Your task to perform on an android device: read, delete, or share a saved page in the chrome app Image 0: 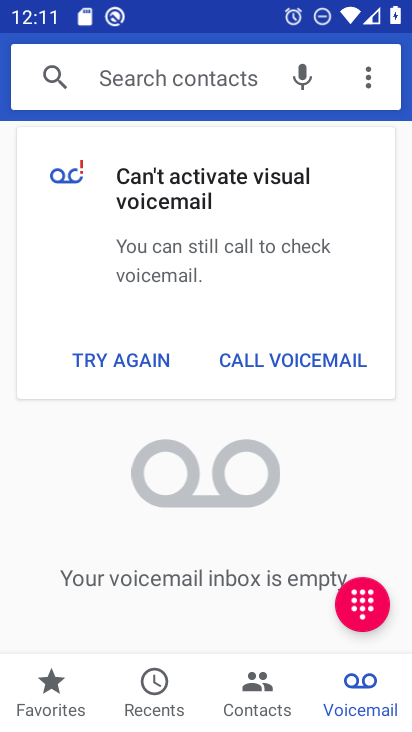
Step 0: press home button
Your task to perform on an android device: read, delete, or share a saved page in the chrome app Image 1: 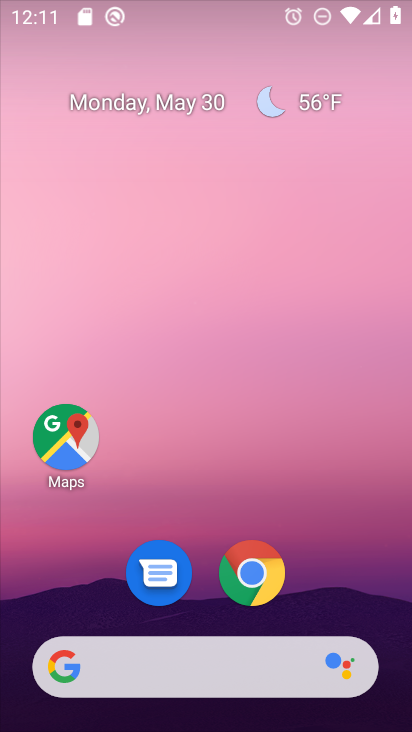
Step 1: drag from (282, 636) to (366, 11)
Your task to perform on an android device: read, delete, or share a saved page in the chrome app Image 2: 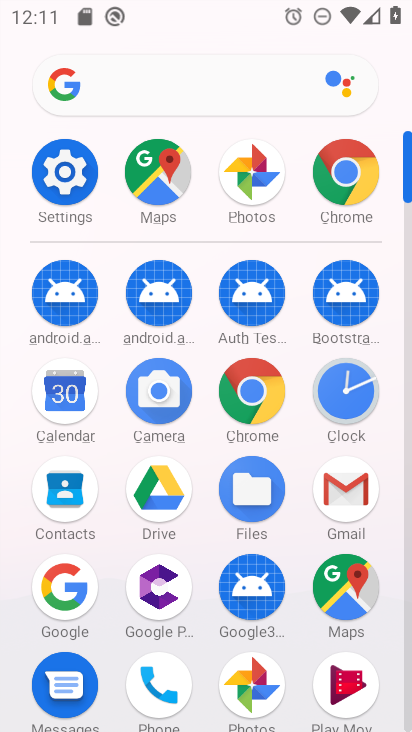
Step 2: click (267, 372)
Your task to perform on an android device: read, delete, or share a saved page in the chrome app Image 3: 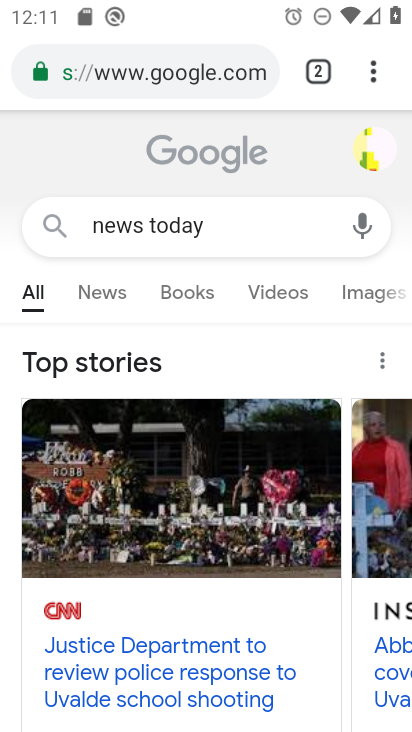
Step 3: task complete